Your task to perform on an android device: toggle sleep mode Image 0: 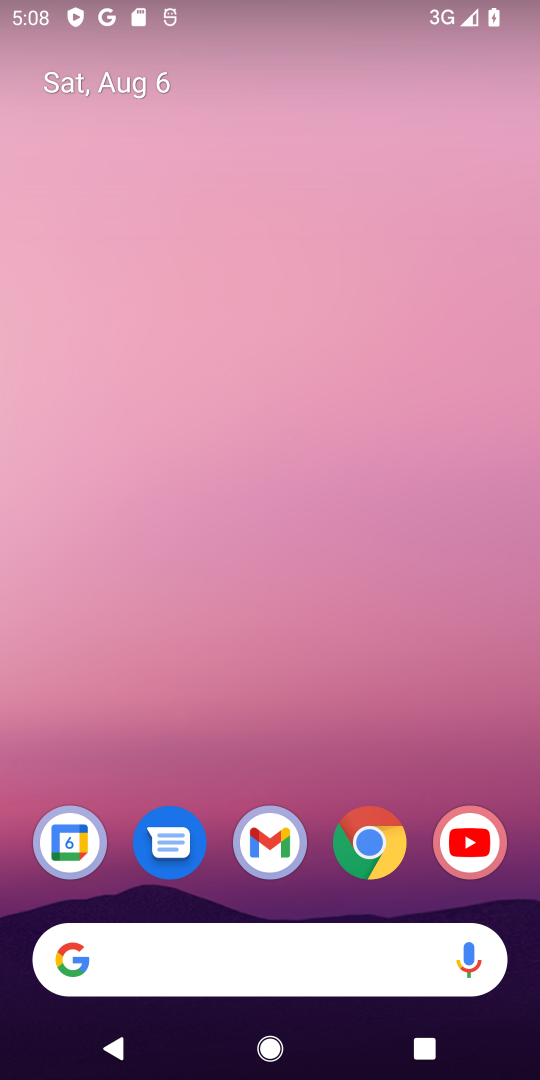
Step 0: drag from (483, 679) to (381, 206)
Your task to perform on an android device: toggle sleep mode Image 1: 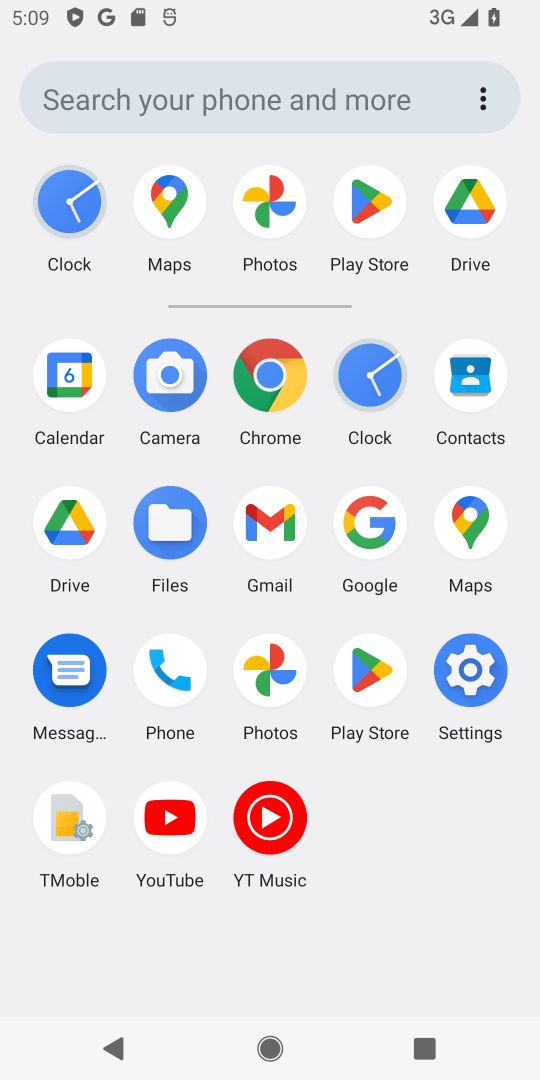
Step 1: click (468, 688)
Your task to perform on an android device: toggle sleep mode Image 2: 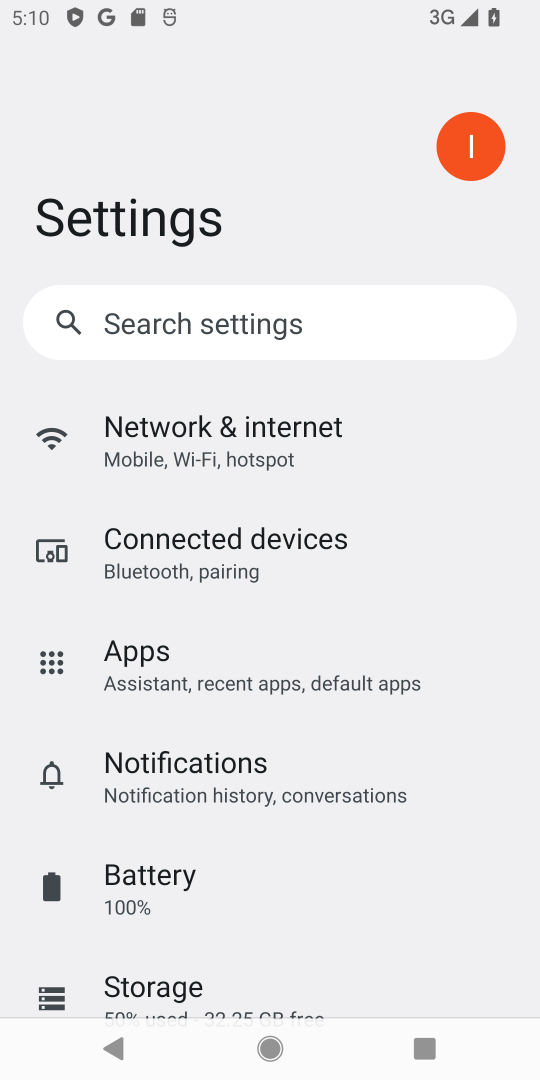
Step 2: drag from (253, 947) to (266, 622)
Your task to perform on an android device: toggle sleep mode Image 3: 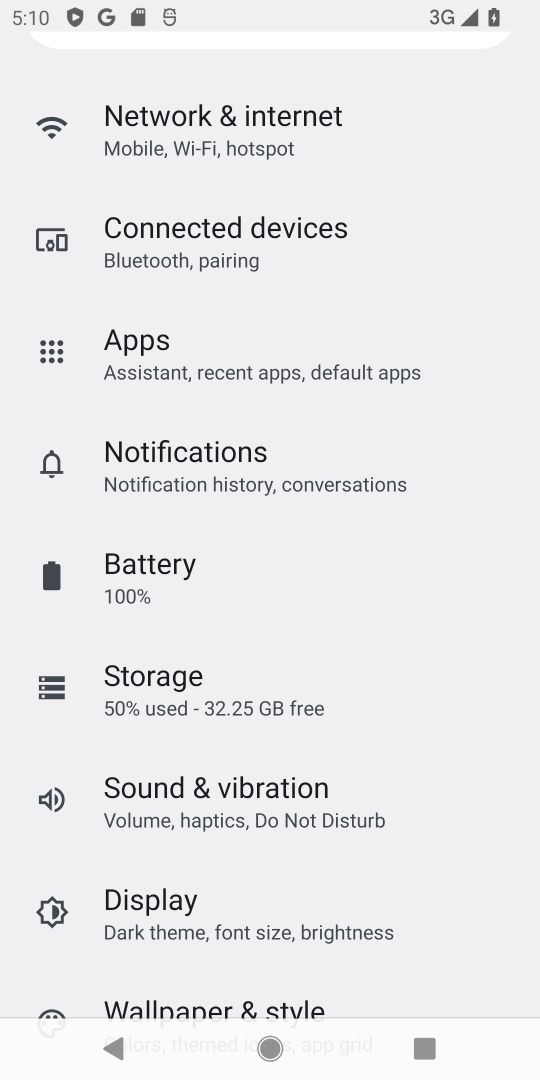
Step 3: click (157, 900)
Your task to perform on an android device: toggle sleep mode Image 4: 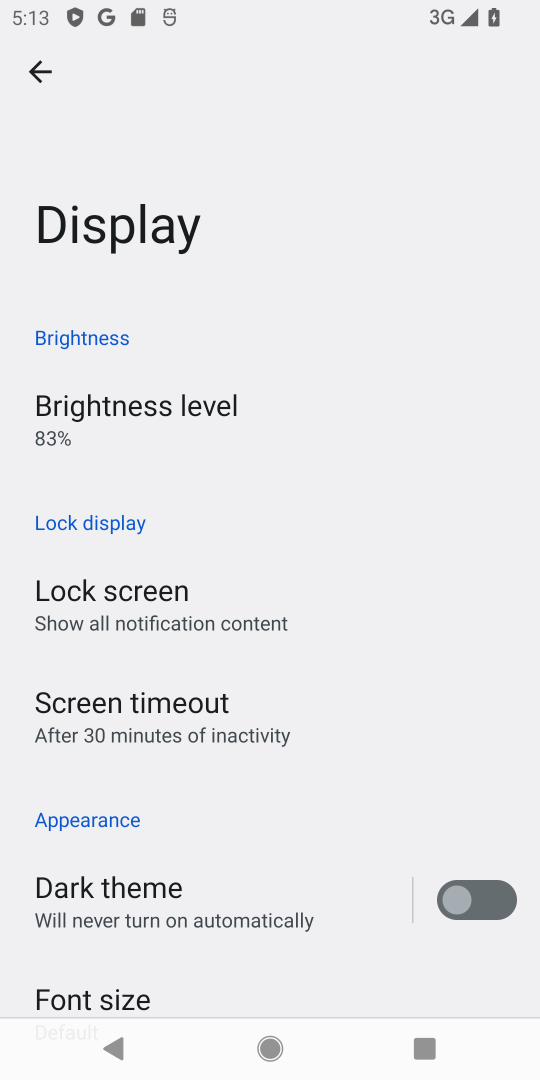
Step 4: task complete